Your task to perform on an android device: Open the calendar app, open the side menu, and click the "Day" option Image 0: 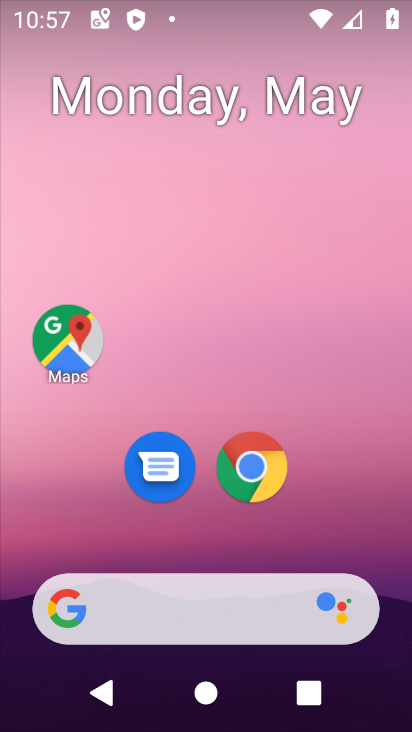
Step 0: drag from (322, 534) to (354, 4)
Your task to perform on an android device: Open the calendar app, open the side menu, and click the "Day" option Image 1: 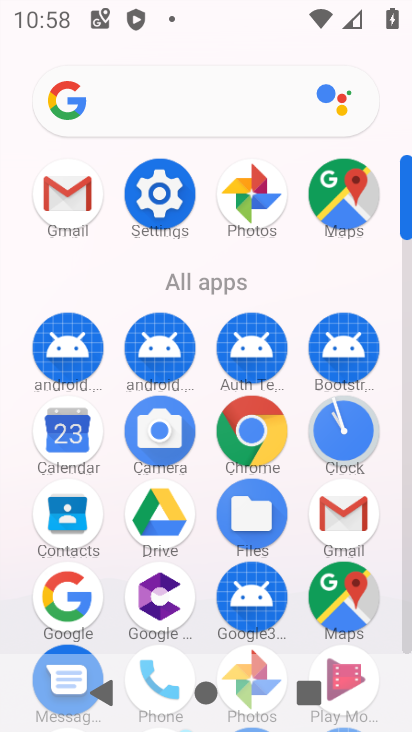
Step 1: click (60, 430)
Your task to perform on an android device: Open the calendar app, open the side menu, and click the "Day" option Image 2: 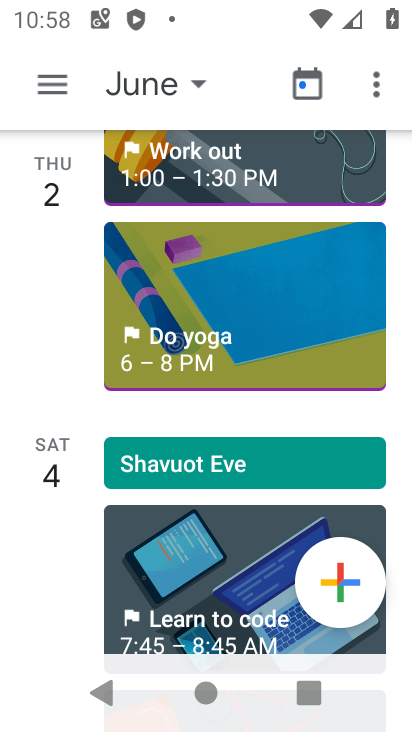
Step 2: click (43, 82)
Your task to perform on an android device: Open the calendar app, open the side menu, and click the "Day" option Image 3: 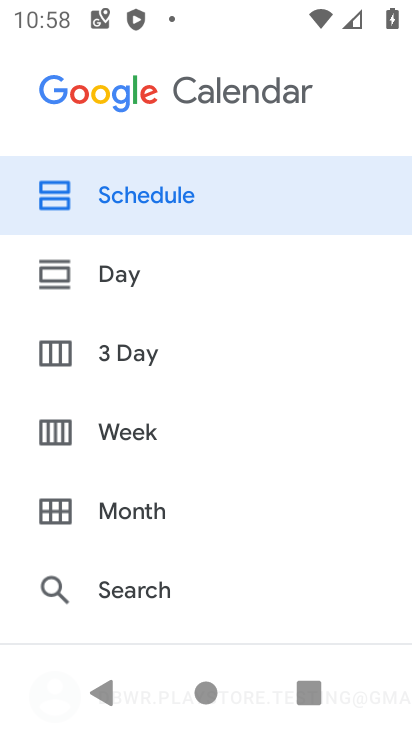
Step 3: click (116, 273)
Your task to perform on an android device: Open the calendar app, open the side menu, and click the "Day" option Image 4: 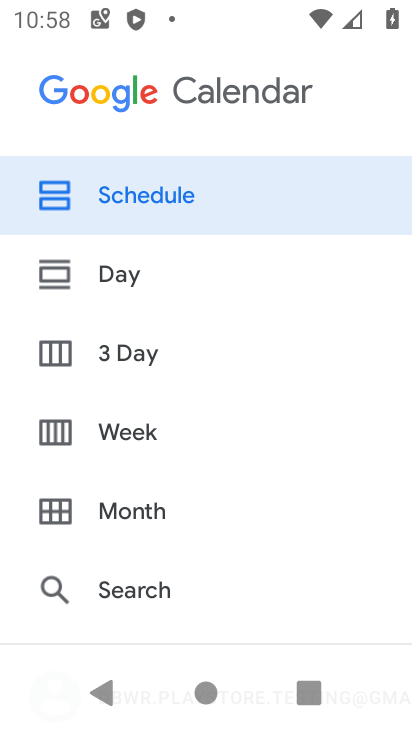
Step 4: click (184, 281)
Your task to perform on an android device: Open the calendar app, open the side menu, and click the "Day" option Image 5: 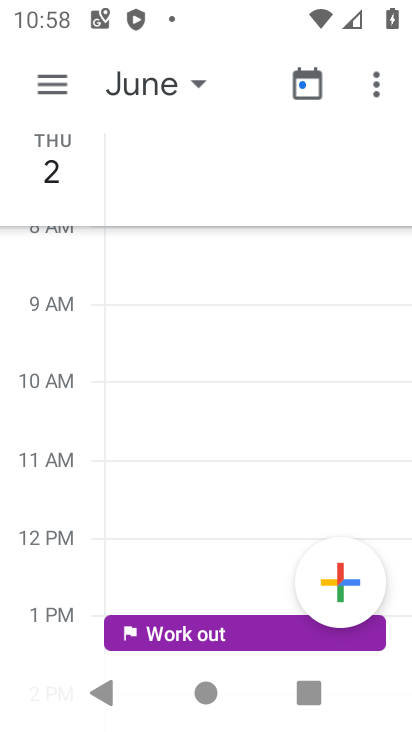
Step 5: task complete